Your task to perform on an android device: turn on the 24-hour format for clock Image 0: 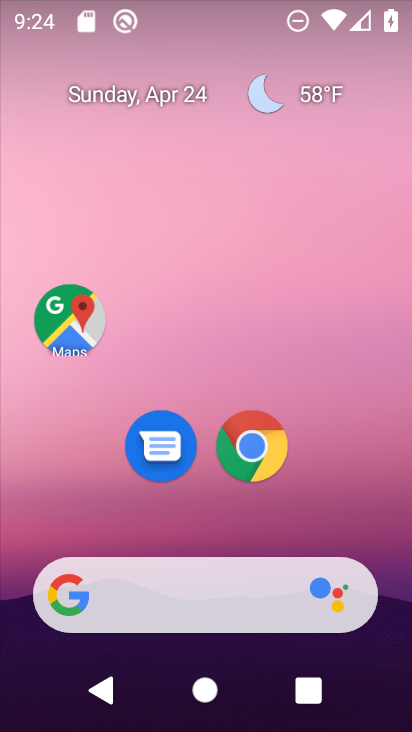
Step 0: drag from (193, 604) to (387, 16)
Your task to perform on an android device: turn on the 24-hour format for clock Image 1: 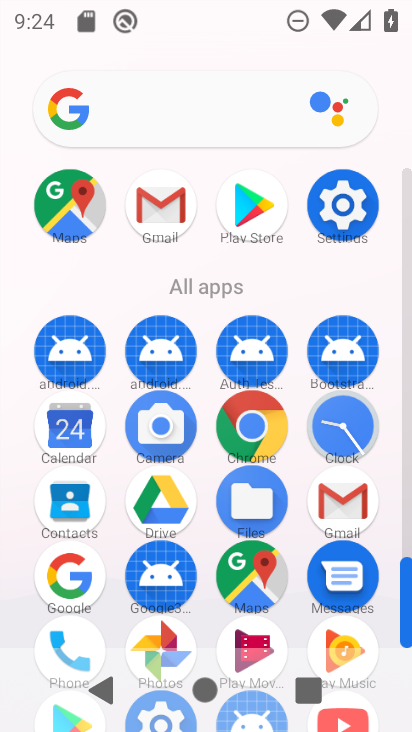
Step 1: click (343, 439)
Your task to perform on an android device: turn on the 24-hour format for clock Image 2: 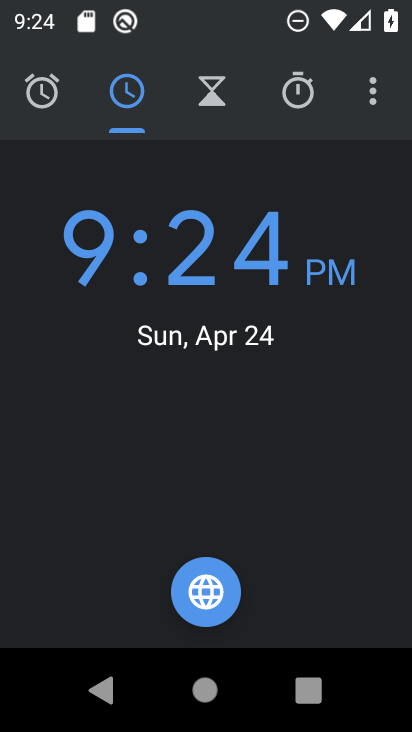
Step 2: click (375, 97)
Your task to perform on an android device: turn on the 24-hour format for clock Image 3: 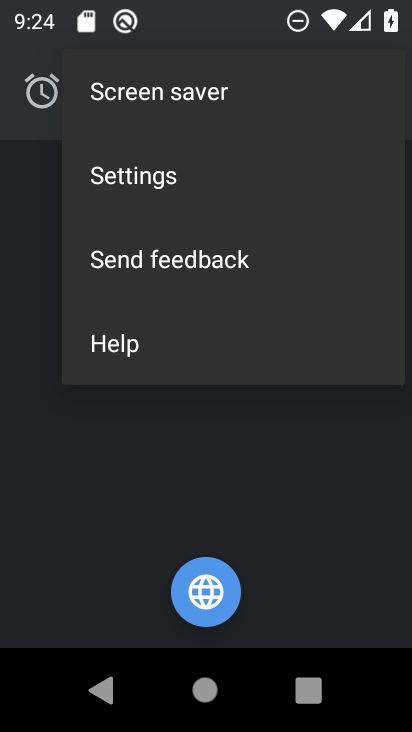
Step 3: click (133, 174)
Your task to perform on an android device: turn on the 24-hour format for clock Image 4: 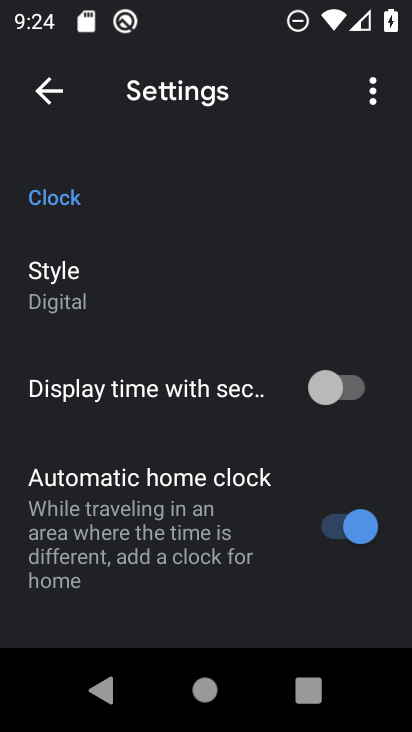
Step 4: drag from (175, 577) to (400, 122)
Your task to perform on an android device: turn on the 24-hour format for clock Image 5: 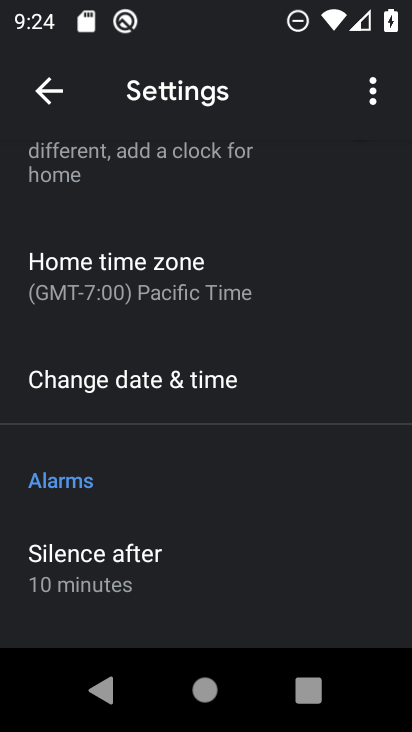
Step 5: drag from (257, 517) to (409, 155)
Your task to perform on an android device: turn on the 24-hour format for clock Image 6: 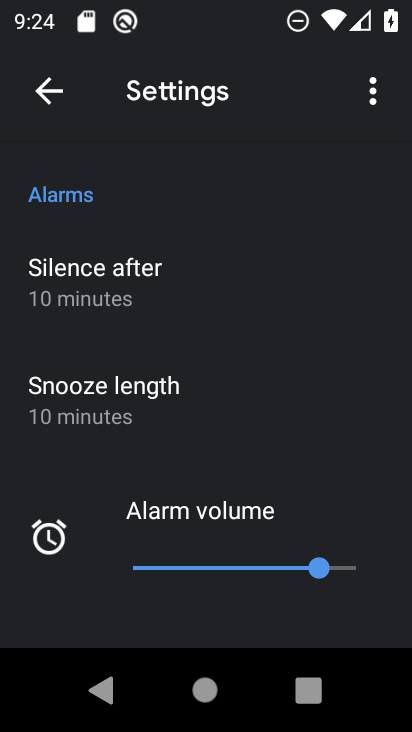
Step 6: drag from (227, 542) to (395, 116)
Your task to perform on an android device: turn on the 24-hour format for clock Image 7: 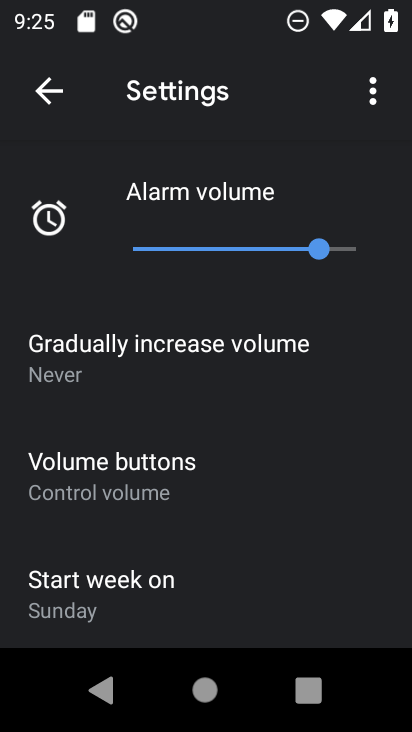
Step 7: drag from (188, 237) to (186, 436)
Your task to perform on an android device: turn on the 24-hour format for clock Image 8: 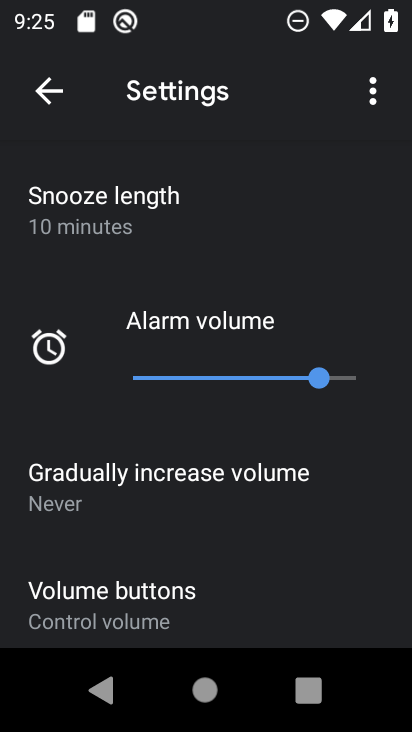
Step 8: drag from (260, 219) to (227, 562)
Your task to perform on an android device: turn on the 24-hour format for clock Image 9: 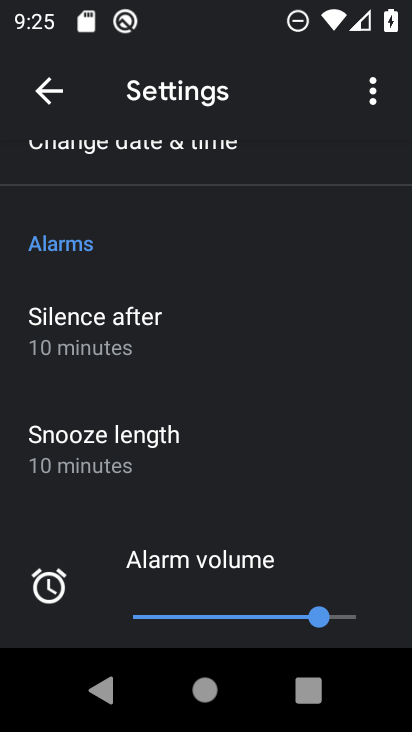
Step 9: click (214, 143)
Your task to perform on an android device: turn on the 24-hour format for clock Image 10: 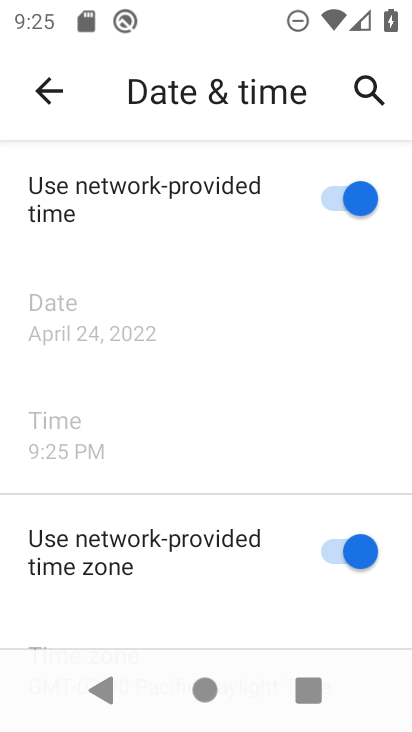
Step 10: drag from (171, 572) to (339, 116)
Your task to perform on an android device: turn on the 24-hour format for clock Image 11: 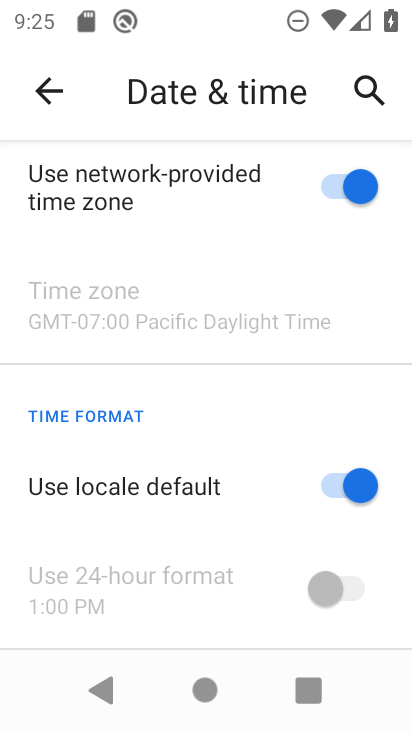
Step 11: click (338, 483)
Your task to perform on an android device: turn on the 24-hour format for clock Image 12: 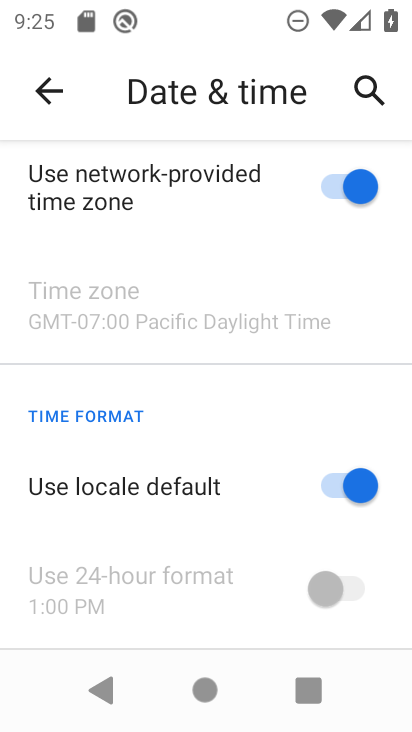
Step 12: click (354, 585)
Your task to perform on an android device: turn on the 24-hour format for clock Image 13: 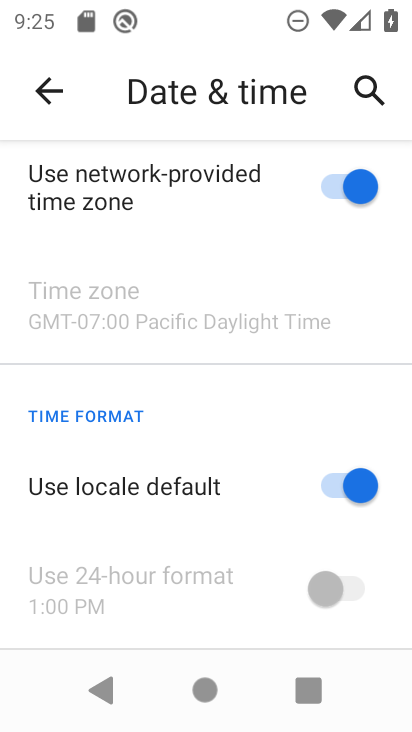
Step 13: click (337, 483)
Your task to perform on an android device: turn on the 24-hour format for clock Image 14: 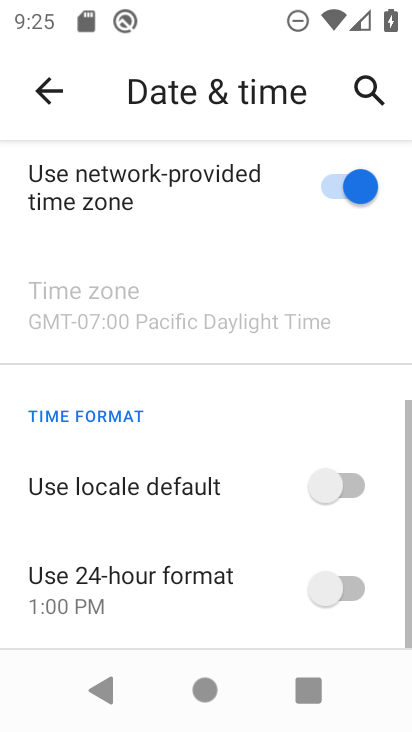
Step 14: click (351, 590)
Your task to perform on an android device: turn on the 24-hour format for clock Image 15: 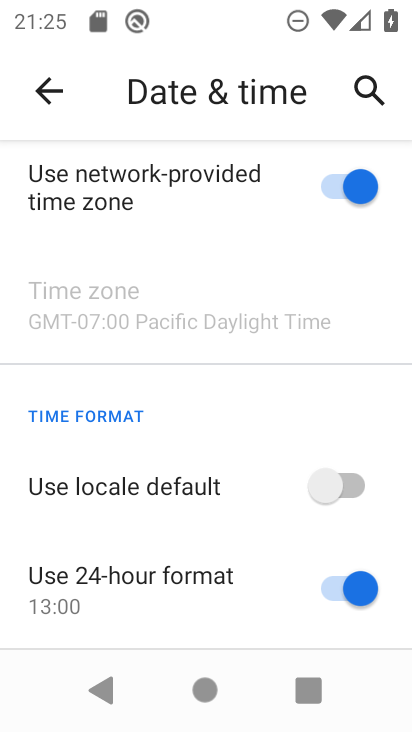
Step 15: task complete